Your task to perform on an android device: Play the last video I watched on Youtube Image 0: 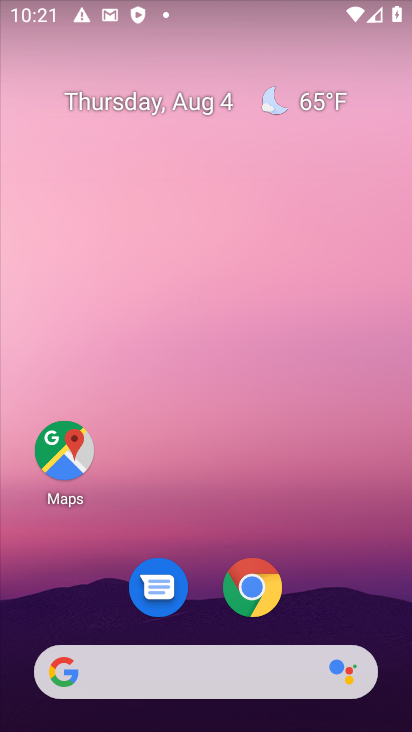
Step 0: drag from (209, 619) to (244, 216)
Your task to perform on an android device: Play the last video I watched on Youtube Image 1: 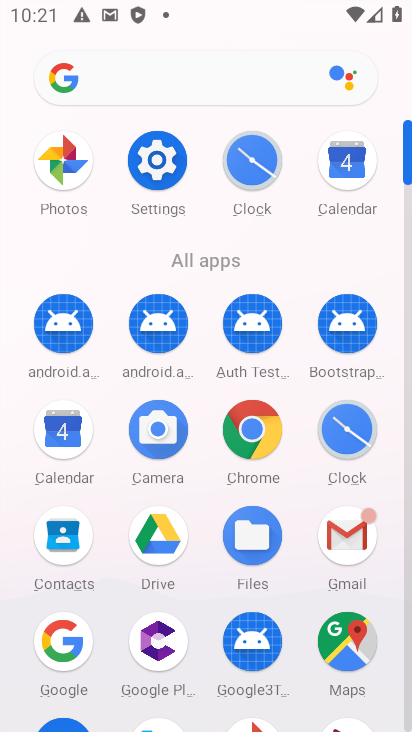
Step 1: drag from (230, 611) to (264, 127)
Your task to perform on an android device: Play the last video I watched on Youtube Image 2: 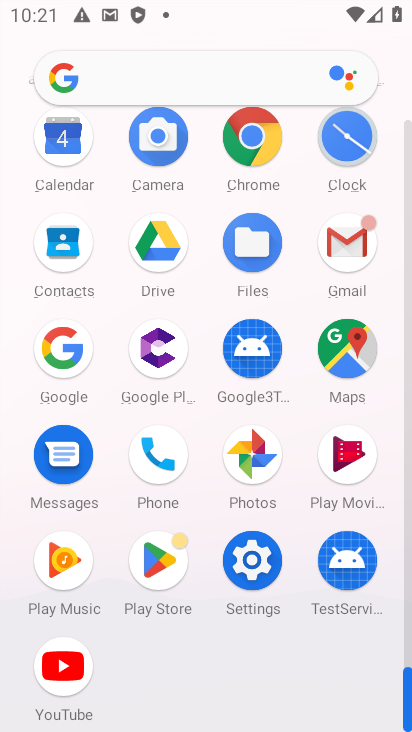
Step 2: click (63, 653)
Your task to perform on an android device: Play the last video I watched on Youtube Image 3: 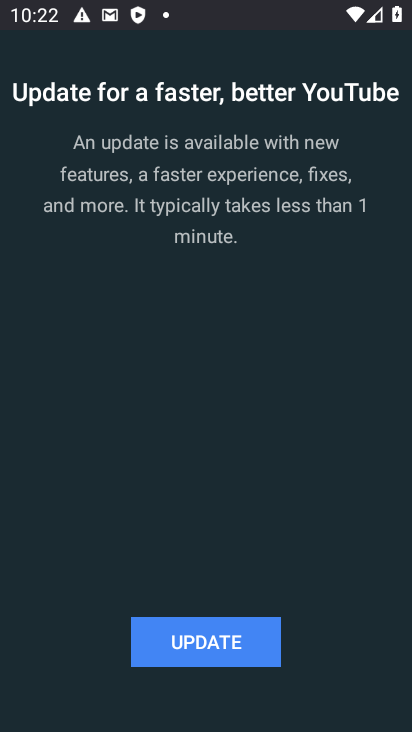
Step 3: task complete